Your task to perform on an android device: Do I have any events tomorrow? Image 0: 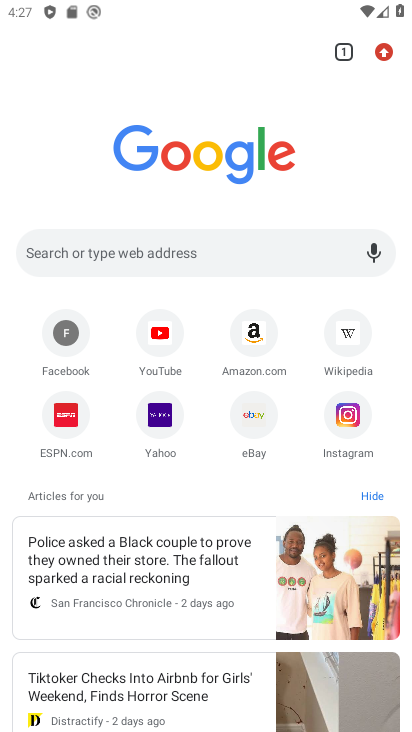
Step 0: press home button
Your task to perform on an android device: Do I have any events tomorrow? Image 1: 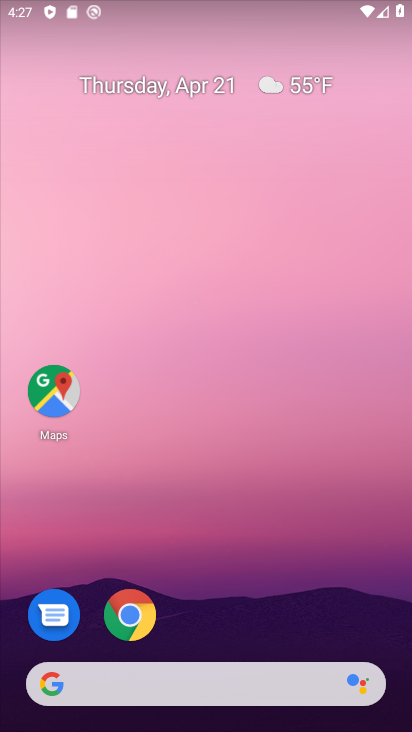
Step 1: drag from (222, 626) to (215, 197)
Your task to perform on an android device: Do I have any events tomorrow? Image 2: 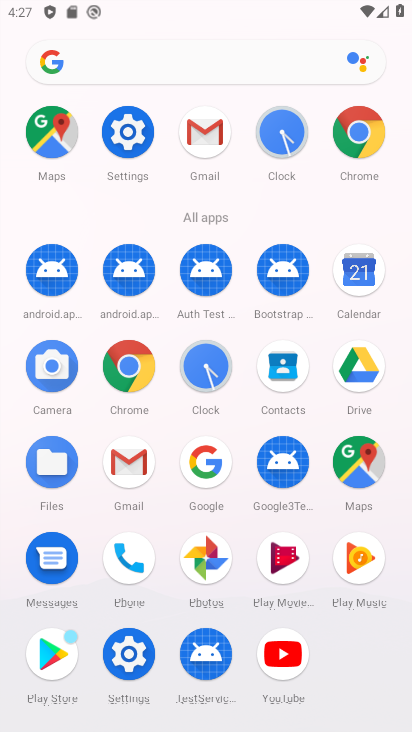
Step 2: click (333, 281)
Your task to perform on an android device: Do I have any events tomorrow? Image 3: 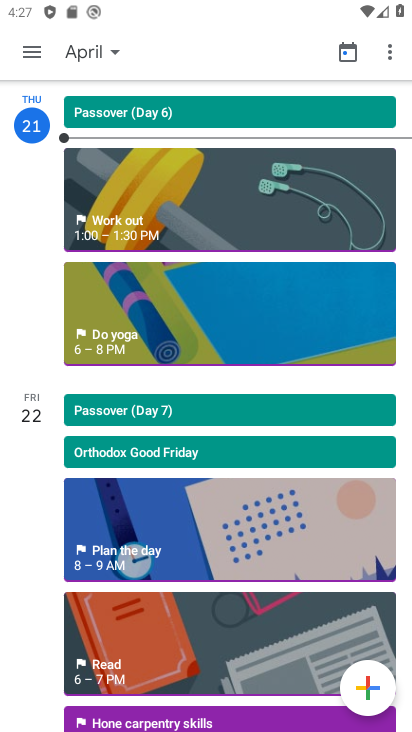
Step 3: click (93, 52)
Your task to perform on an android device: Do I have any events tomorrow? Image 4: 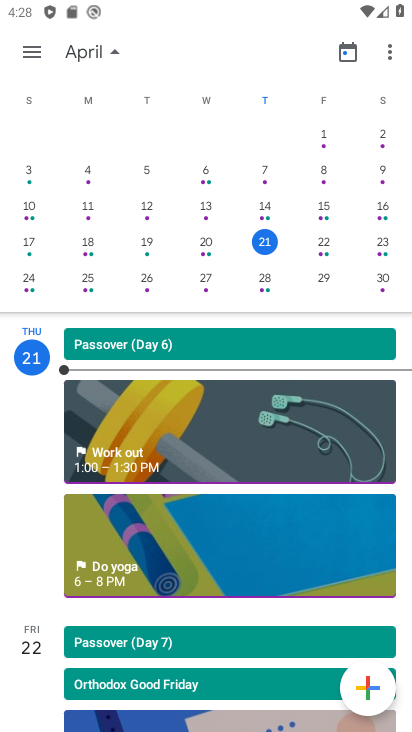
Step 4: click (326, 241)
Your task to perform on an android device: Do I have any events tomorrow? Image 5: 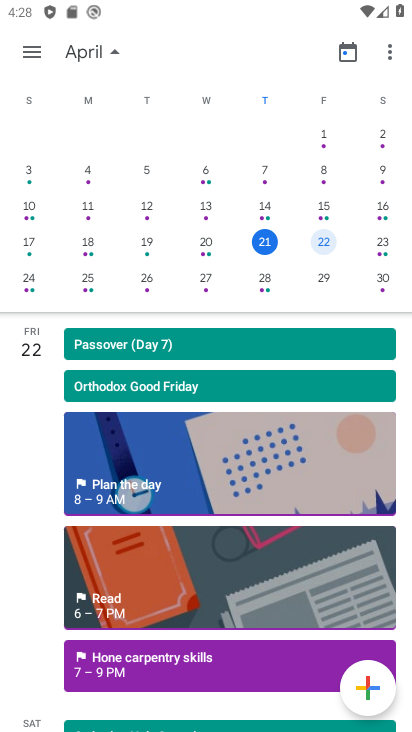
Step 5: click (322, 242)
Your task to perform on an android device: Do I have any events tomorrow? Image 6: 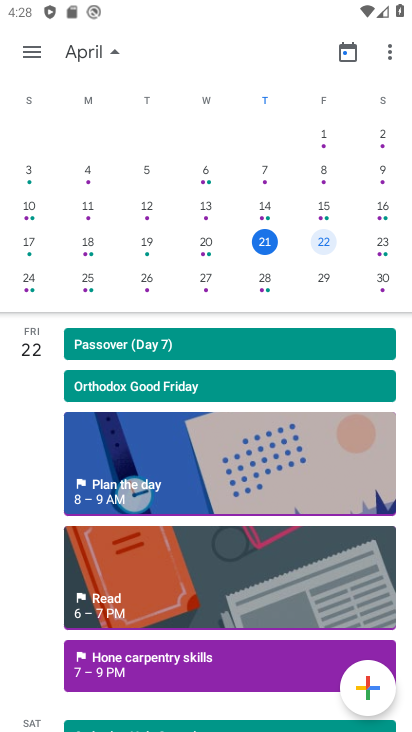
Step 6: click (318, 250)
Your task to perform on an android device: Do I have any events tomorrow? Image 7: 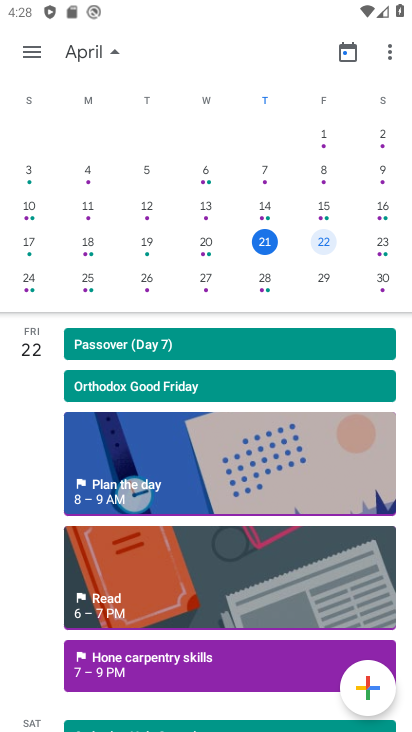
Step 7: click (320, 249)
Your task to perform on an android device: Do I have any events tomorrow? Image 8: 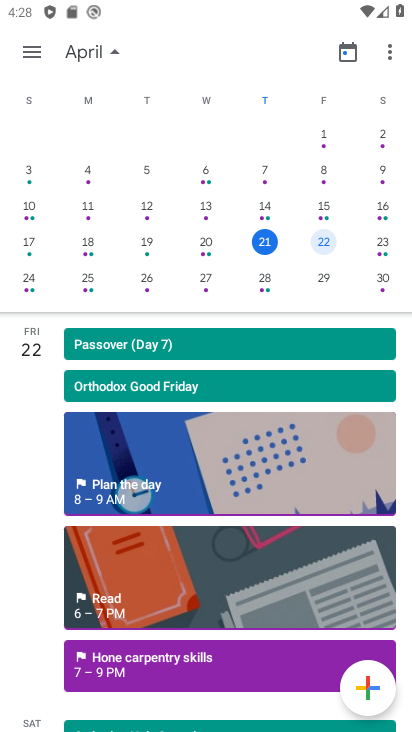
Step 8: click (330, 237)
Your task to perform on an android device: Do I have any events tomorrow? Image 9: 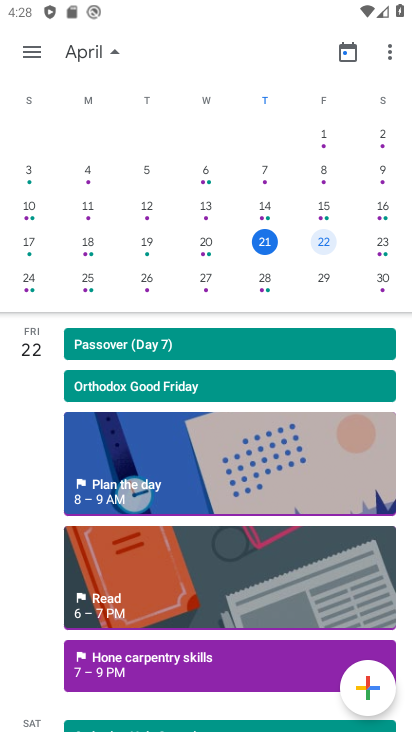
Step 9: click (329, 237)
Your task to perform on an android device: Do I have any events tomorrow? Image 10: 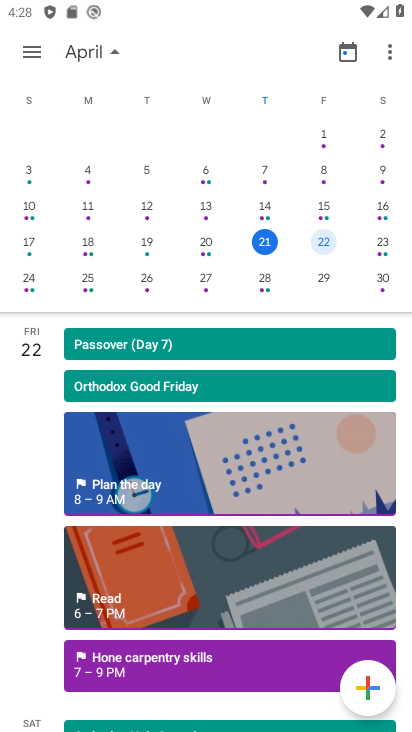
Step 10: click (329, 237)
Your task to perform on an android device: Do I have any events tomorrow? Image 11: 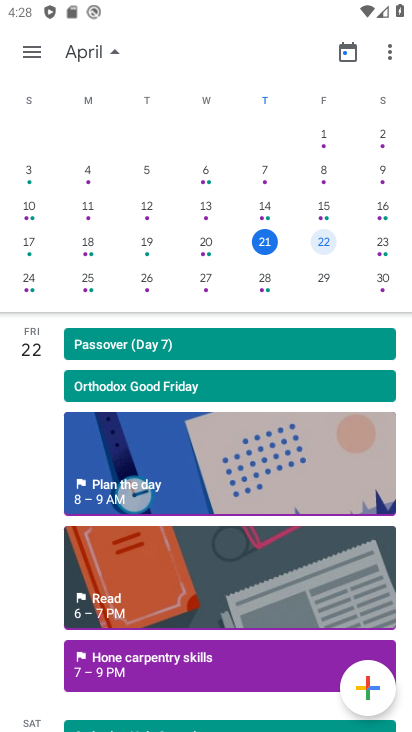
Step 11: click (329, 237)
Your task to perform on an android device: Do I have any events tomorrow? Image 12: 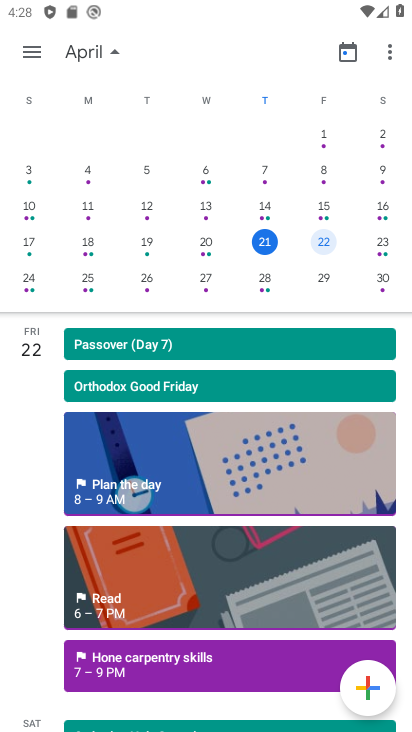
Step 12: click (321, 234)
Your task to perform on an android device: Do I have any events tomorrow? Image 13: 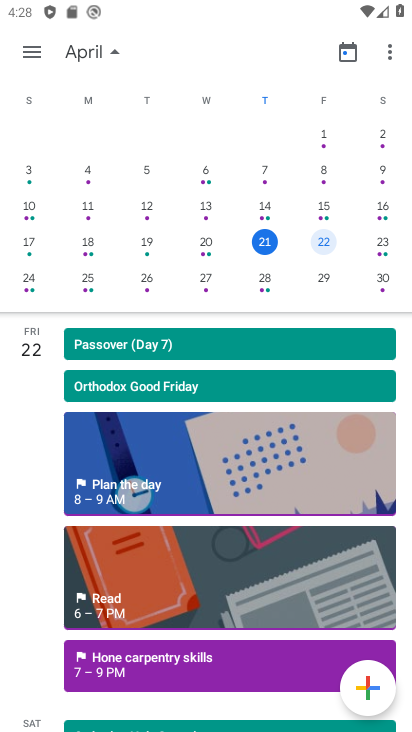
Step 13: task complete